Your task to perform on an android device: check android version Image 0: 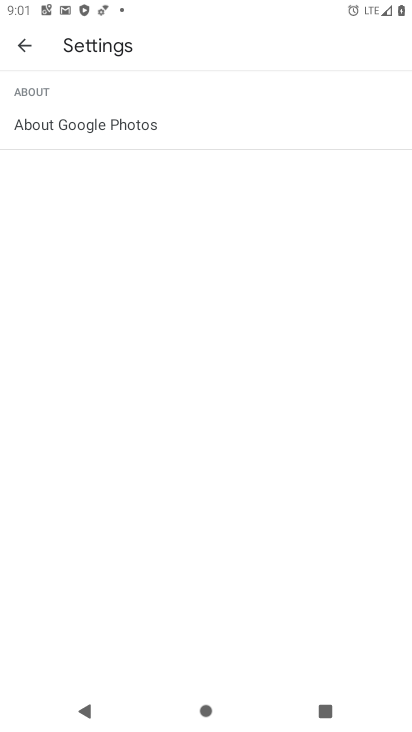
Step 0: press home button
Your task to perform on an android device: check android version Image 1: 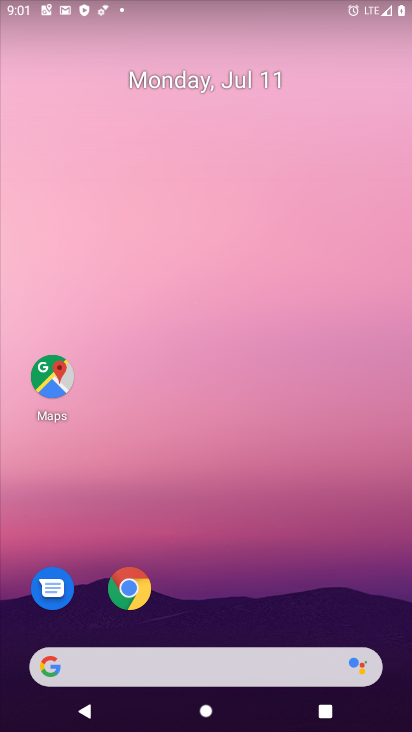
Step 1: drag from (174, 670) to (372, 36)
Your task to perform on an android device: check android version Image 2: 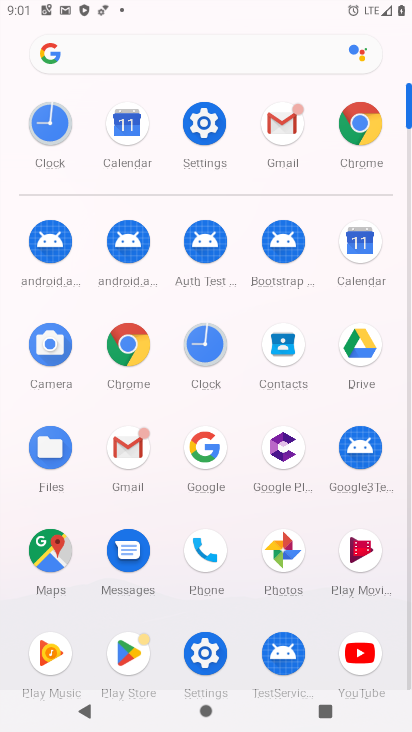
Step 2: click (207, 119)
Your task to perform on an android device: check android version Image 3: 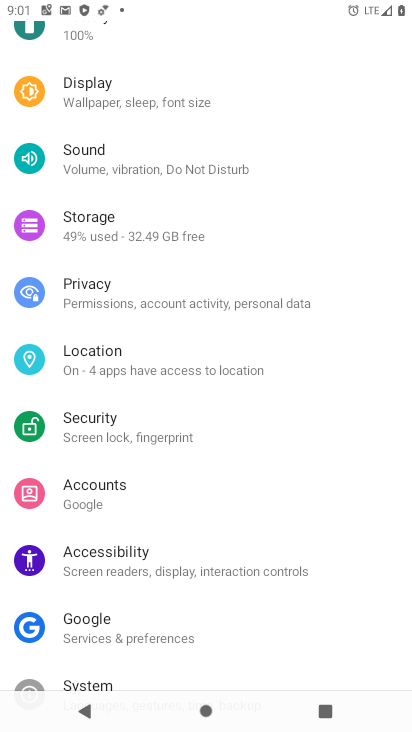
Step 3: drag from (257, 651) to (405, 48)
Your task to perform on an android device: check android version Image 4: 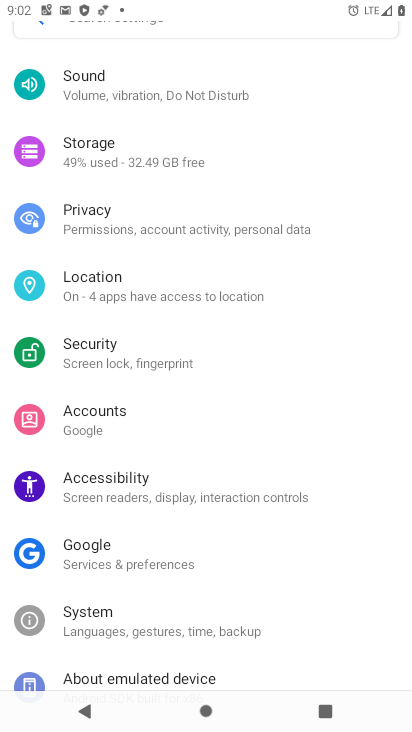
Step 4: drag from (299, 666) to (386, 71)
Your task to perform on an android device: check android version Image 5: 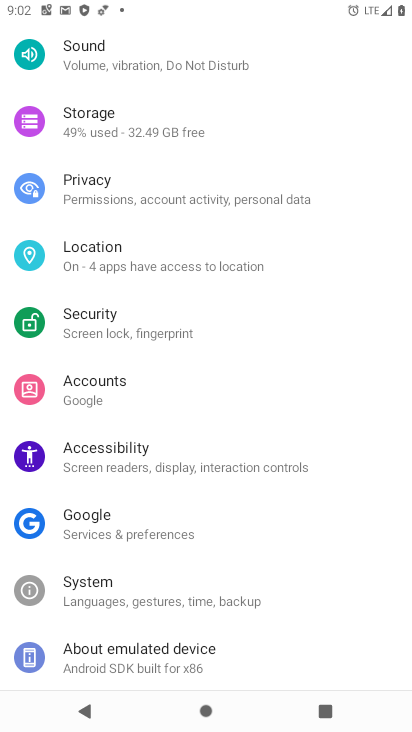
Step 5: click (140, 653)
Your task to perform on an android device: check android version Image 6: 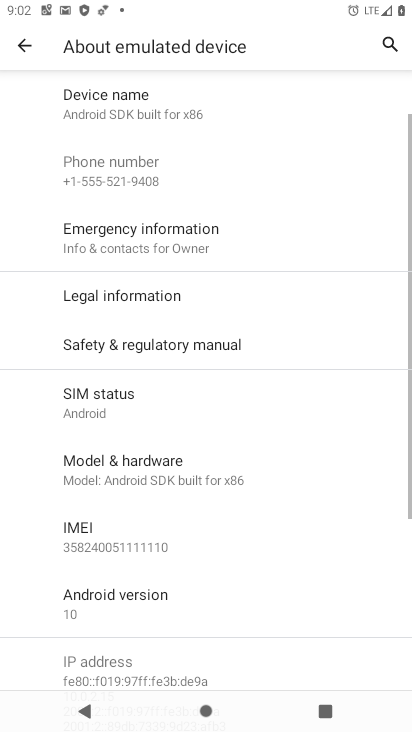
Step 6: drag from (217, 647) to (340, 260)
Your task to perform on an android device: check android version Image 7: 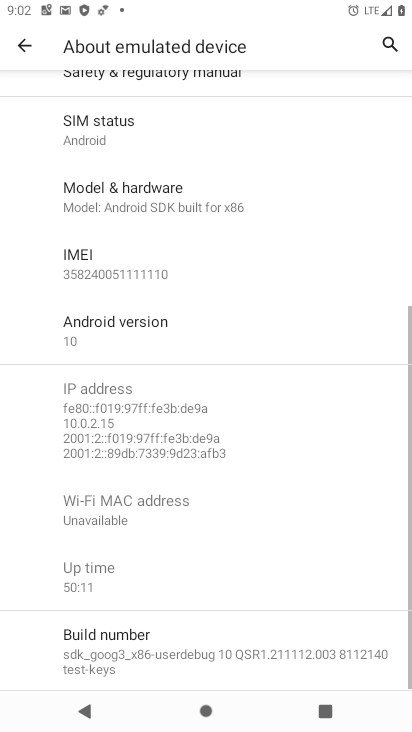
Step 7: click (109, 317)
Your task to perform on an android device: check android version Image 8: 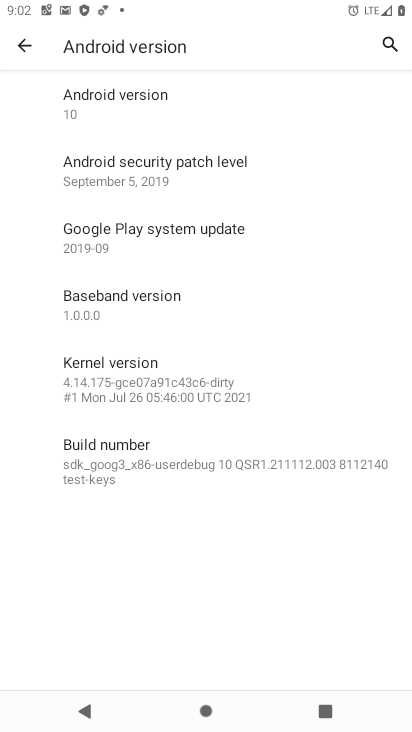
Step 8: task complete